Your task to perform on an android device: set default search engine in the chrome app Image 0: 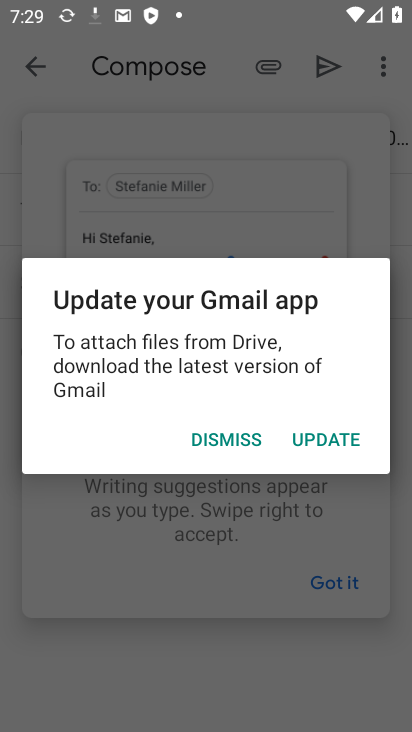
Step 0: press home button
Your task to perform on an android device: set default search engine in the chrome app Image 1: 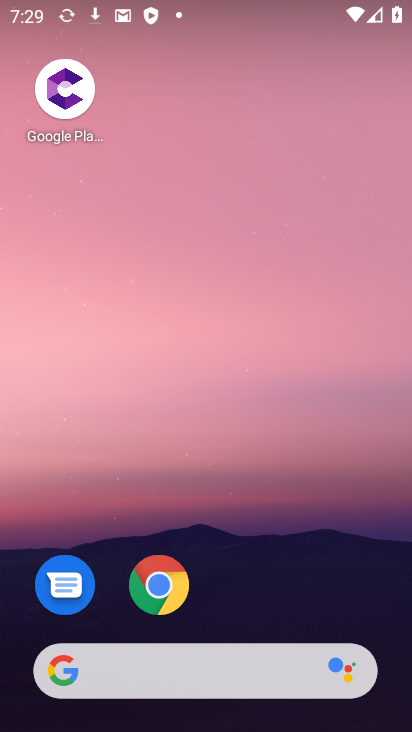
Step 1: click (164, 593)
Your task to perform on an android device: set default search engine in the chrome app Image 2: 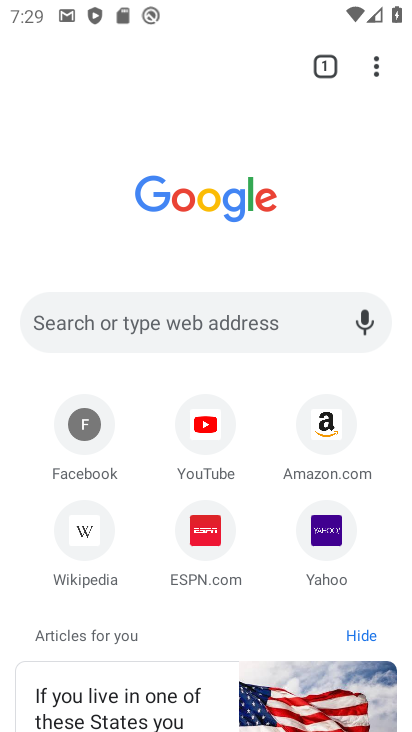
Step 2: drag from (375, 60) to (177, 559)
Your task to perform on an android device: set default search engine in the chrome app Image 3: 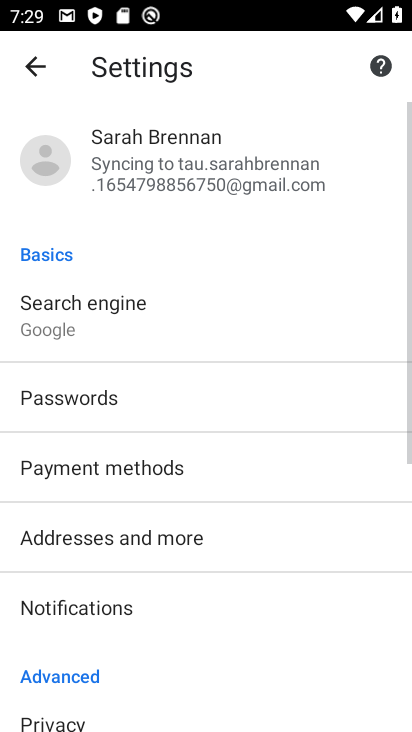
Step 3: click (81, 313)
Your task to perform on an android device: set default search engine in the chrome app Image 4: 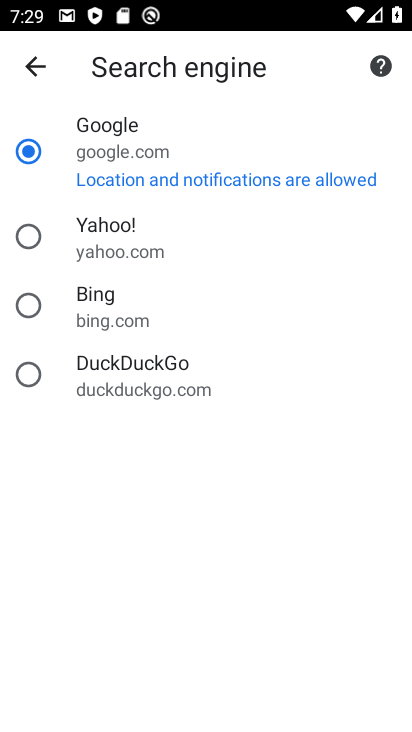
Step 4: click (34, 232)
Your task to perform on an android device: set default search engine in the chrome app Image 5: 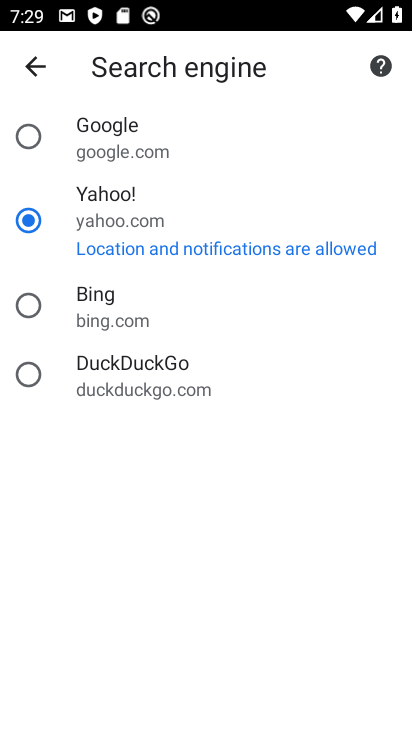
Step 5: task complete